Your task to perform on an android device: turn on translation in the chrome app Image 0: 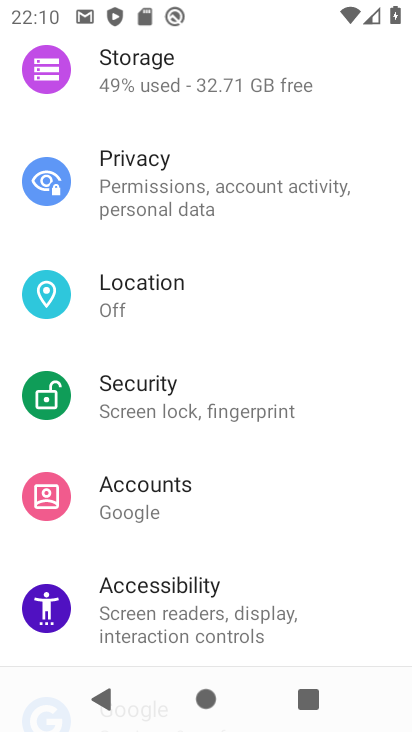
Step 0: press home button
Your task to perform on an android device: turn on translation in the chrome app Image 1: 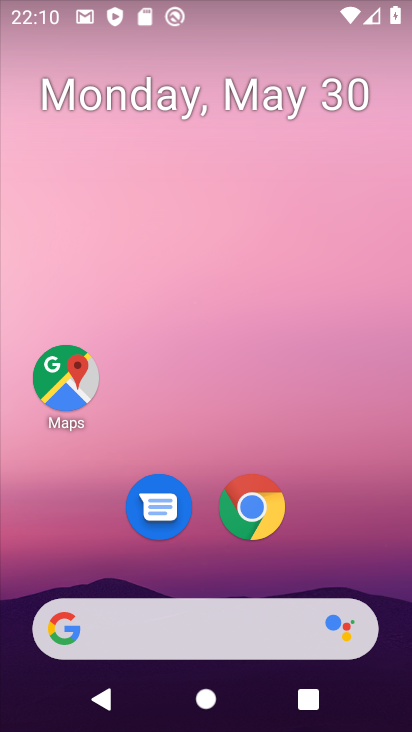
Step 1: drag from (358, 544) to (353, 149)
Your task to perform on an android device: turn on translation in the chrome app Image 2: 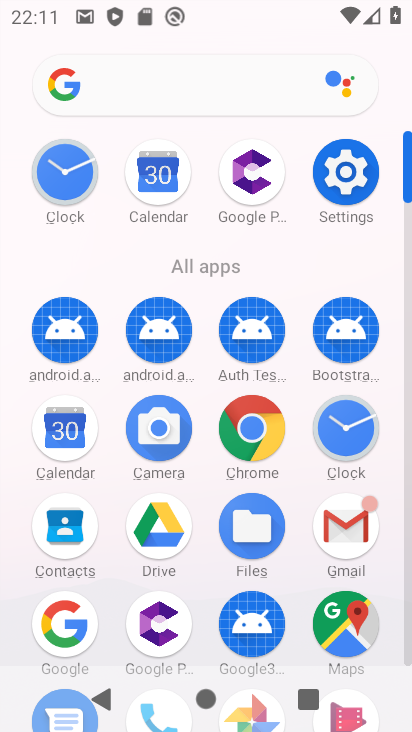
Step 2: drag from (383, 573) to (386, 302)
Your task to perform on an android device: turn on translation in the chrome app Image 3: 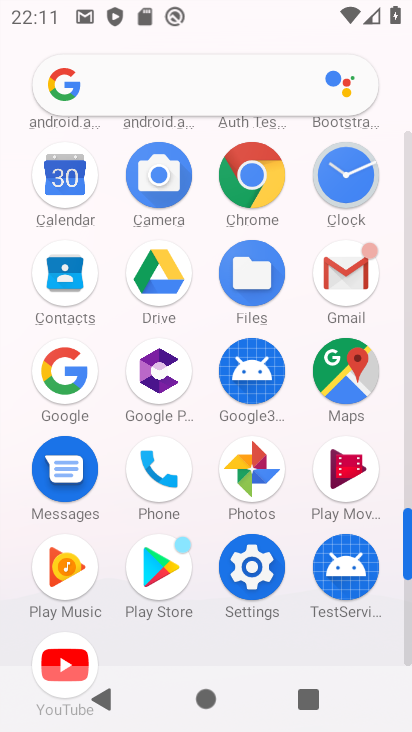
Step 3: click (252, 180)
Your task to perform on an android device: turn on translation in the chrome app Image 4: 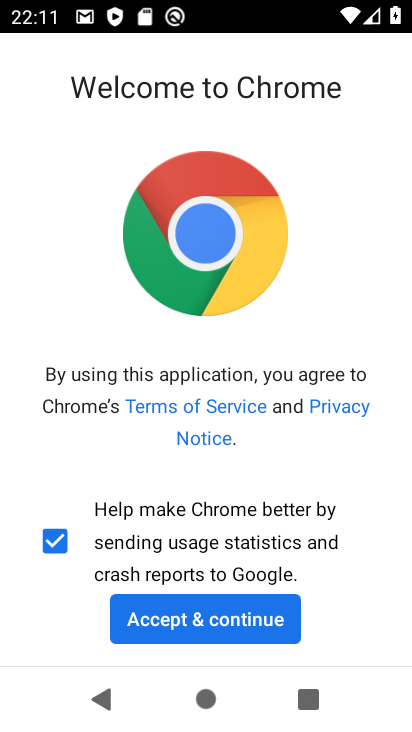
Step 4: click (205, 617)
Your task to perform on an android device: turn on translation in the chrome app Image 5: 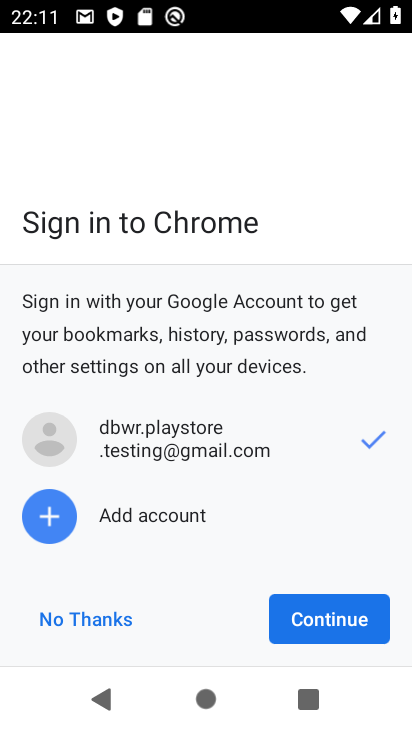
Step 5: click (278, 616)
Your task to perform on an android device: turn on translation in the chrome app Image 6: 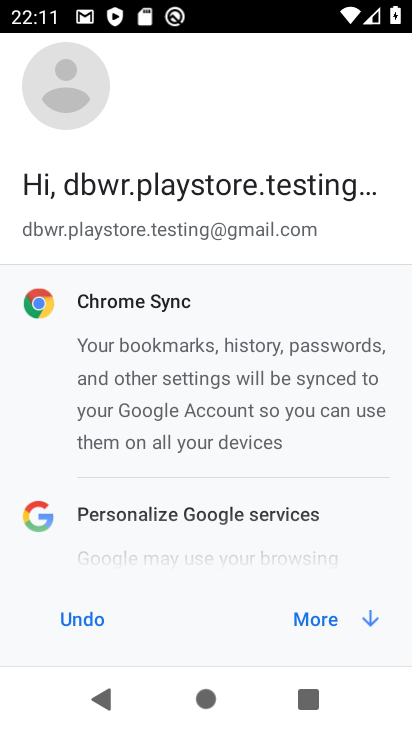
Step 6: click (305, 614)
Your task to perform on an android device: turn on translation in the chrome app Image 7: 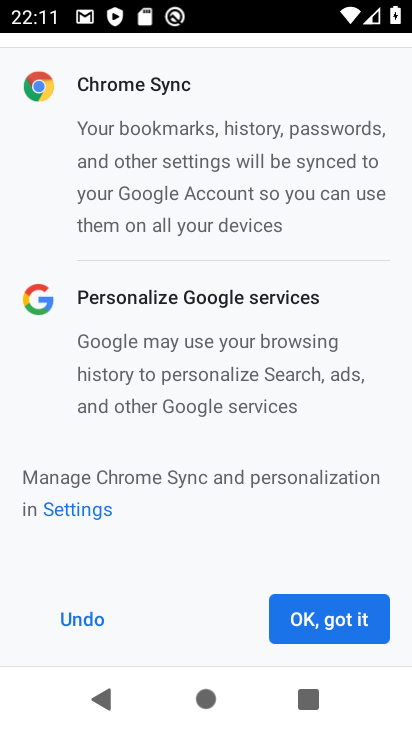
Step 7: click (306, 622)
Your task to perform on an android device: turn on translation in the chrome app Image 8: 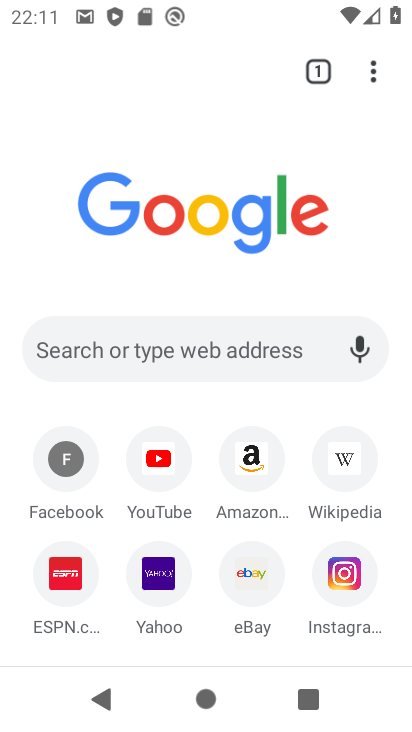
Step 8: click (375, 79)
Your task to perform on an android device: turn on translation in the chrome app Image 9: 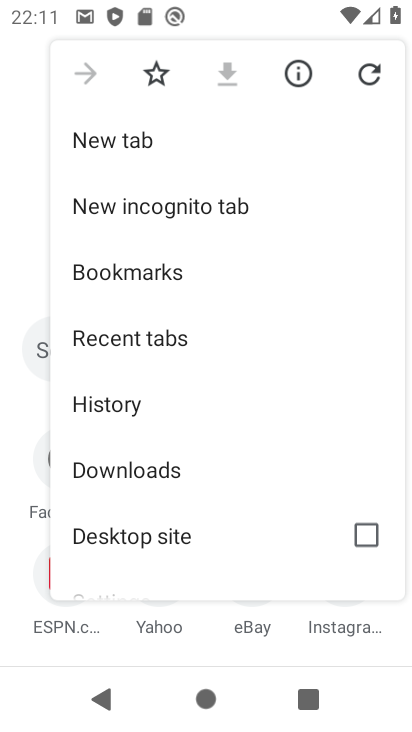
Step 9: drag from (291, 439) to (285, 277)
Your task to perform on an android device: turn on translation in the chrome app Image 10: 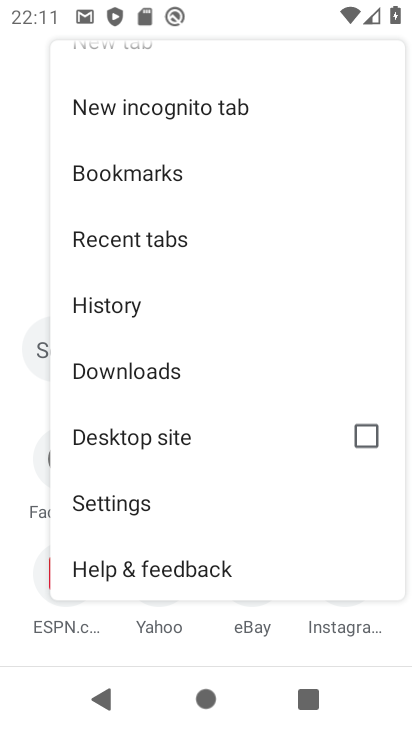
Step 10: drag from (288, 487) to (301, 290)
Your task to perform on an android device: turn on translation in the chrome app Image 11: 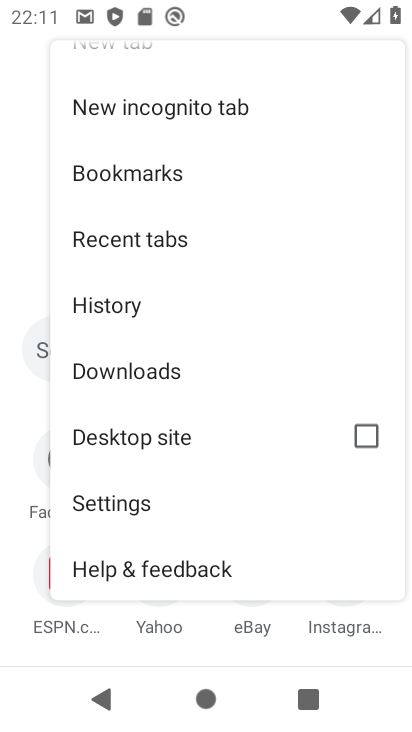
Step 11: click (165, 508)
Your task to perform on an android device: turn on translation in the chrome app Image 12: 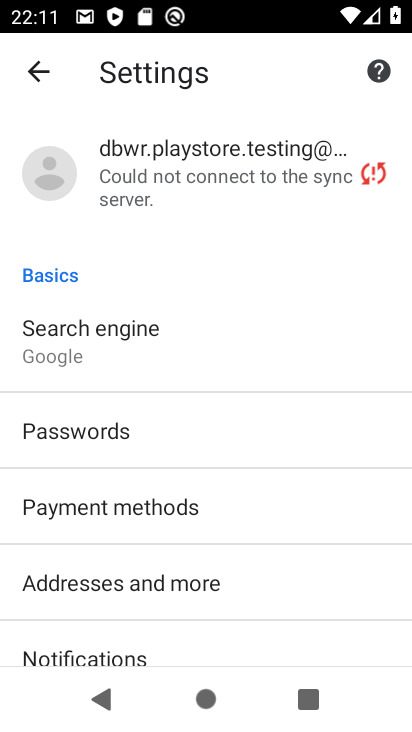
Step 12: drag from (300, 551) to (326, 418)
Your task to perform on an android device: turn on translation in the chrome app Image 13: 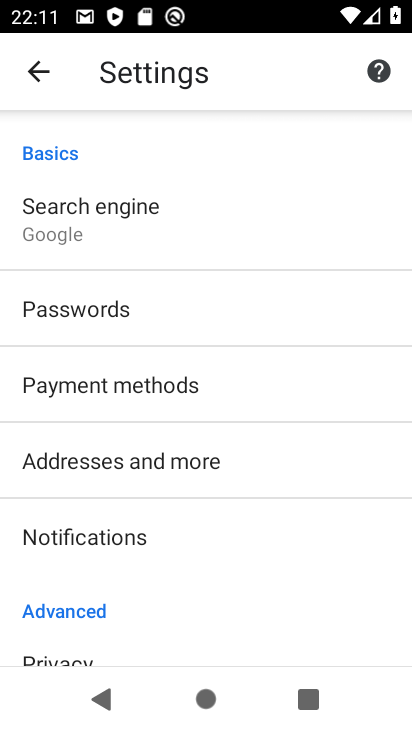
Step 13: drag from (327, 562) to (341, 438)
Your task to perform on an android device: turn on translation in the chrome app Image 14: 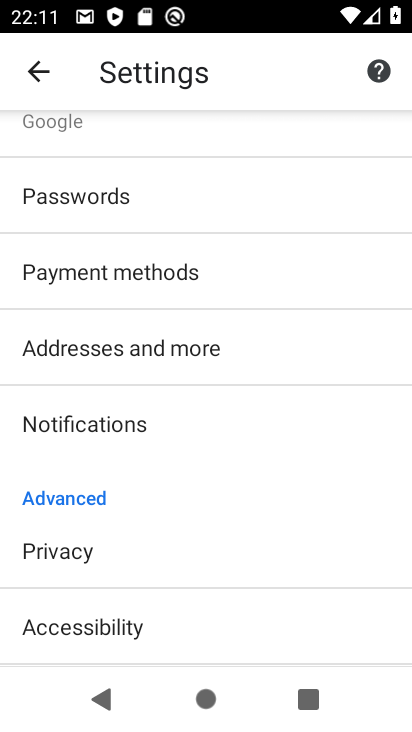
Step 14: drag from (331, 570) to (333, 403)
Your task to perform on an android device: turn on translation in the chrome app Image 15: 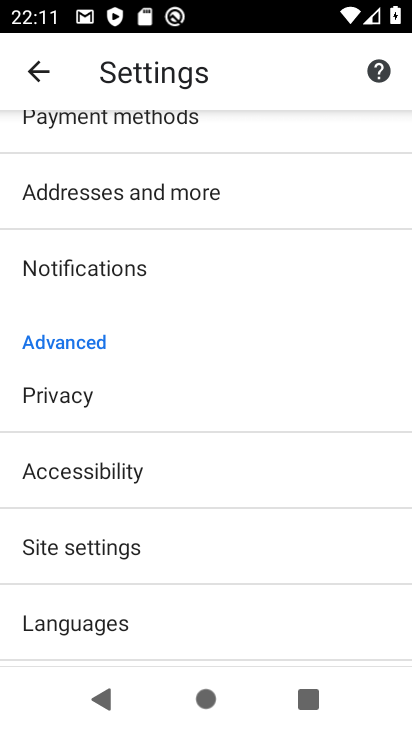
Step 15: drag from (325, 583) to (326, 364)
Your task to perform on an android device: turn on translation in the chrome app Image 16: 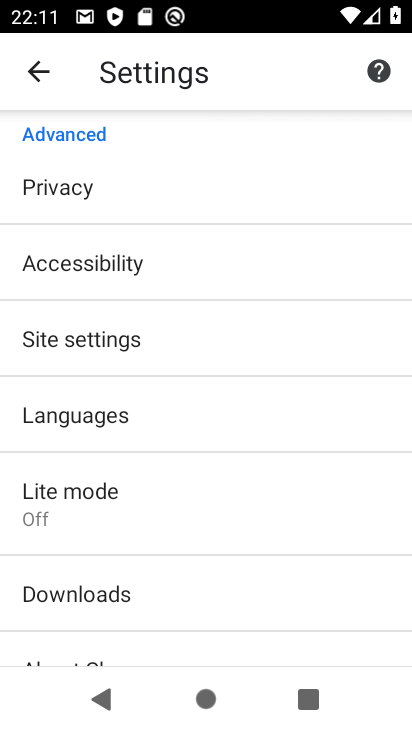
Step 16: drag from (348, 572) to (353, 408)
Your task to perform on an android device: turn on translation in the chrome app Image 17: 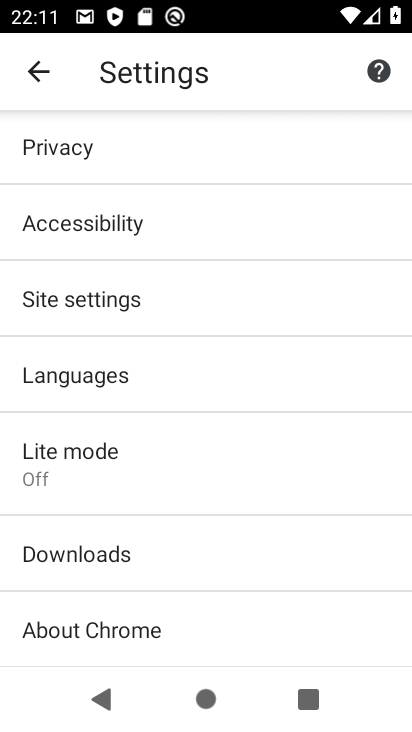
Step 17: drag from (327, 242) to (322, 325)
Your task to perform on an android device: turn on translation in the chrome app Image 18: 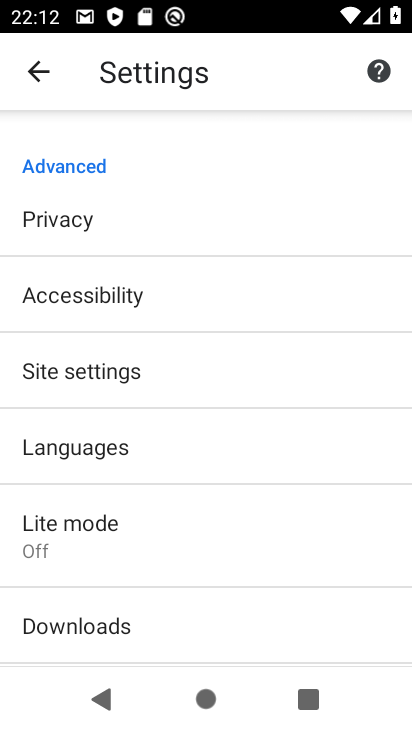
Step 18: click (249, 460)
Your task to perform on an android device: turn on translation in the chrome app Image 19: 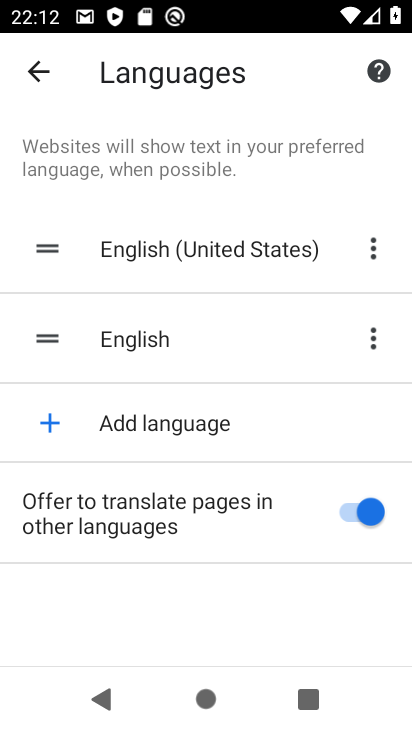
Step 19: task complete